Your task to perform on an android device: Search for Italian restaurants on Maps Image 0: 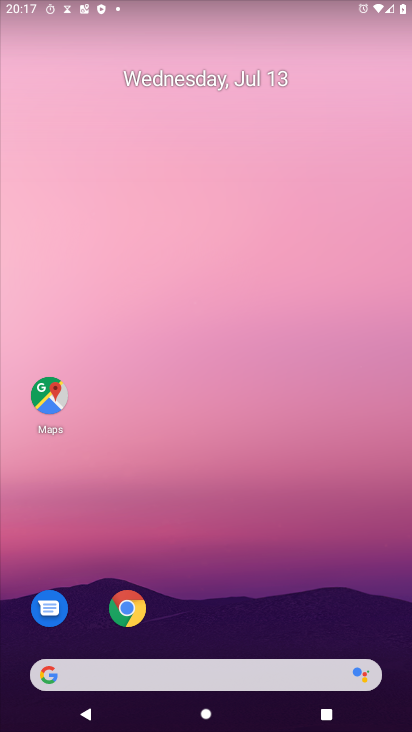
Step 0: click (44, 376)
Your task to perform on an android device: Search for Italian restaurants on Maps Image 1: 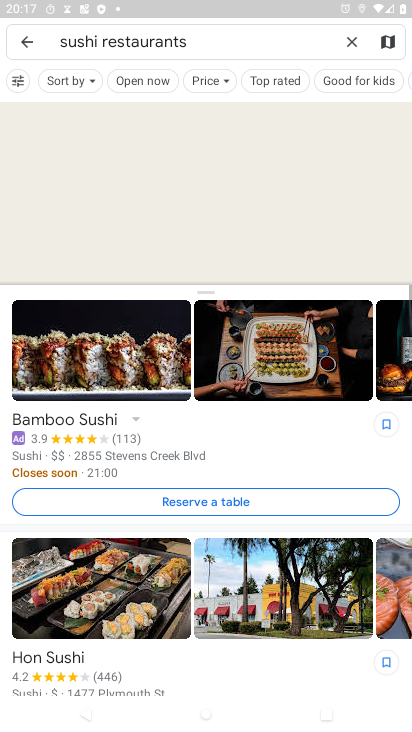
Step 1: click (349, 33)
Your task to perform on an android device: Search for Italian restaurants on Maps Image 2: 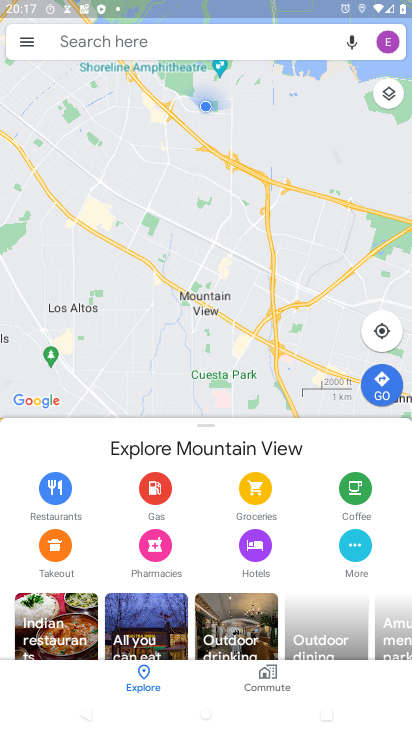
Step 2: click (245, 39)
Your task to perform on an android device: Search for Italian restaurants on Maps Image 3: 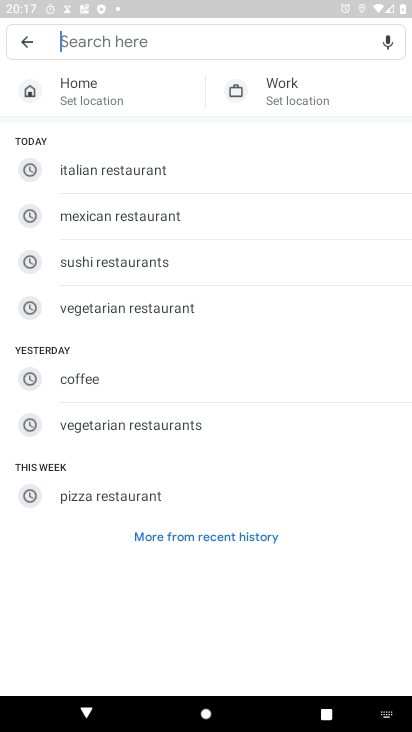
Step 3: click (151, 173)
Your task to perform on an android device: Search for Italian restaurants on Maps Image 4: 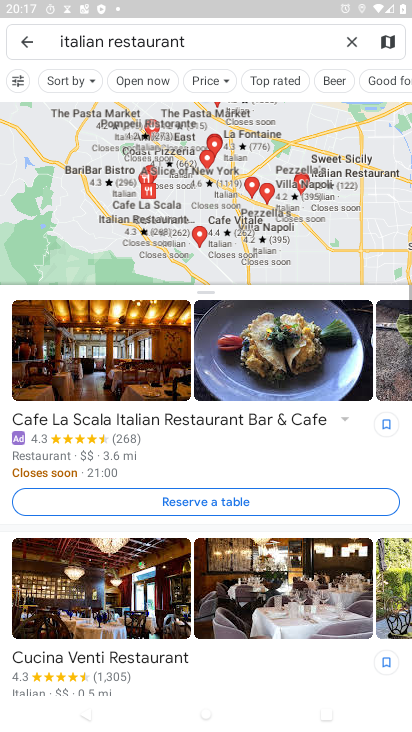
Step 4: task complete